Your task to perform on an android device: toggle sleep mode Image 0: 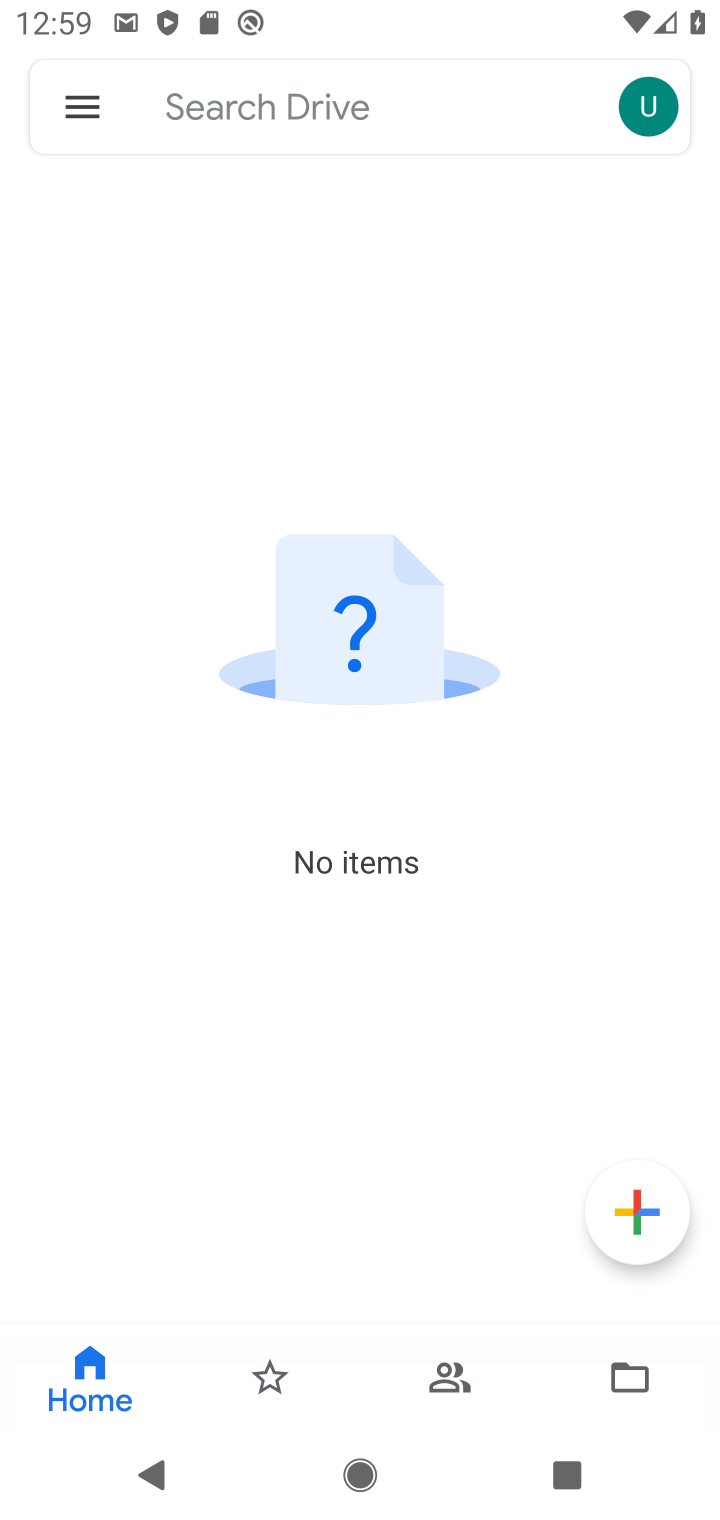
Step 0: press back button
Your task to perform on an android device: toggle sleep mode Image 1: 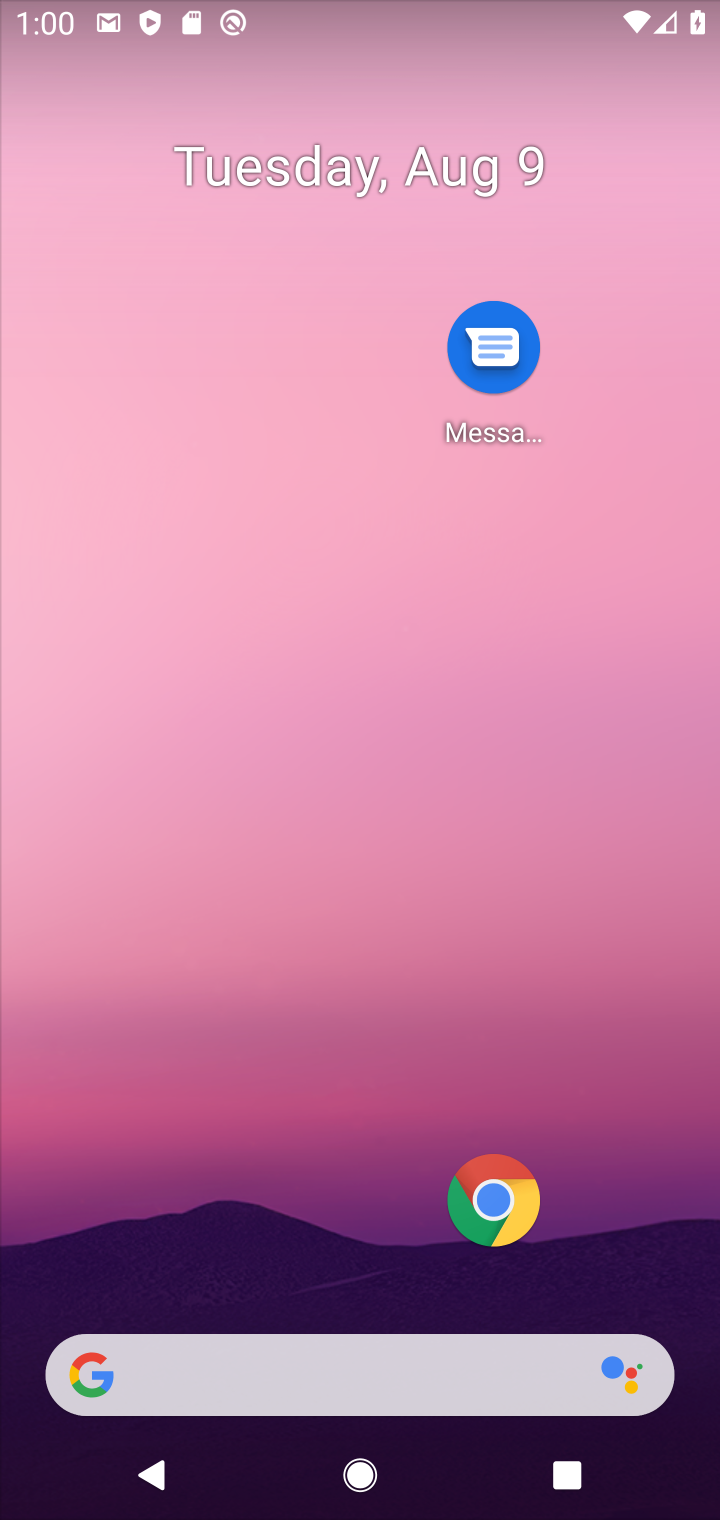
Step 1: drag from (356, 943) to (509, 7)
Your task to perform on an android device: toggle sleep mode Image 2: 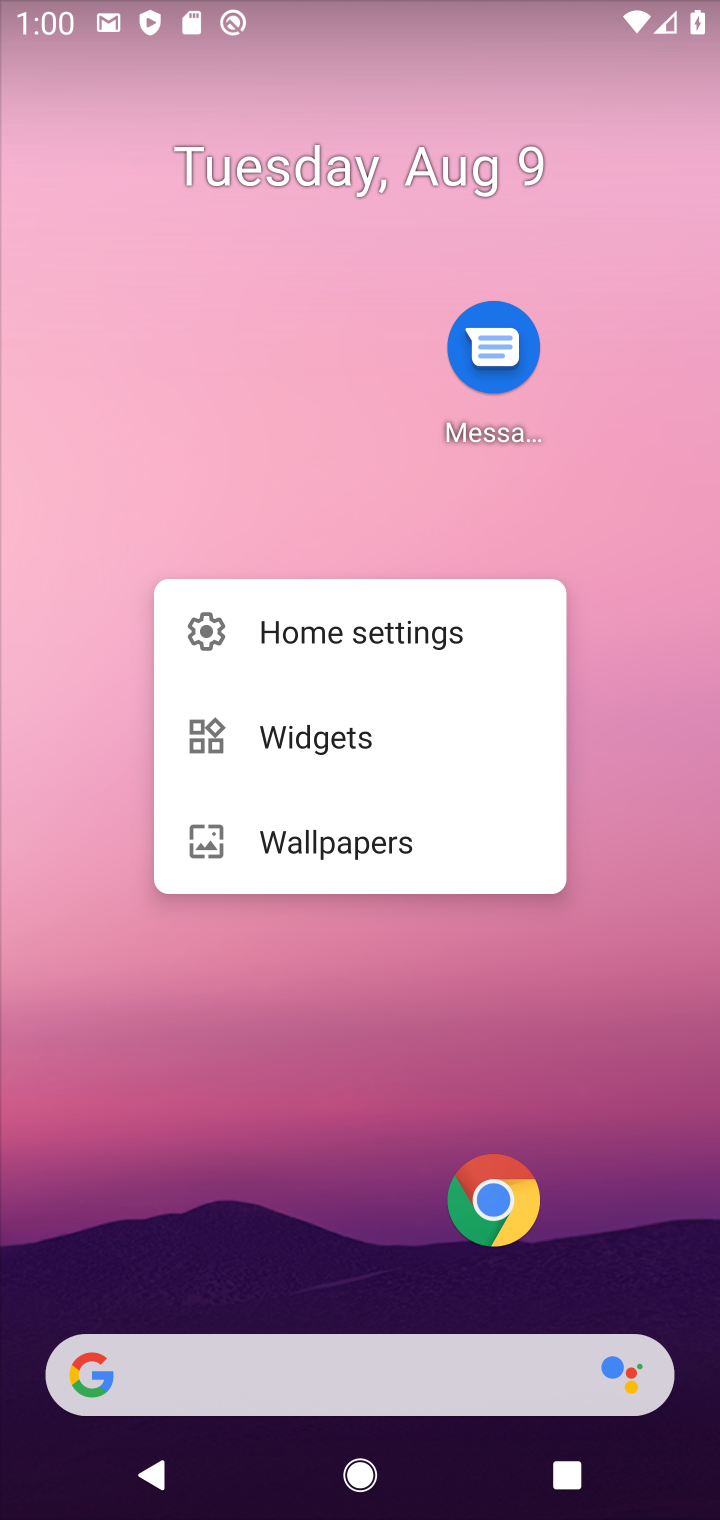
Step 2: click (170, 1285)
Your task to perform on an android device: toggle sleep mode Image 3: 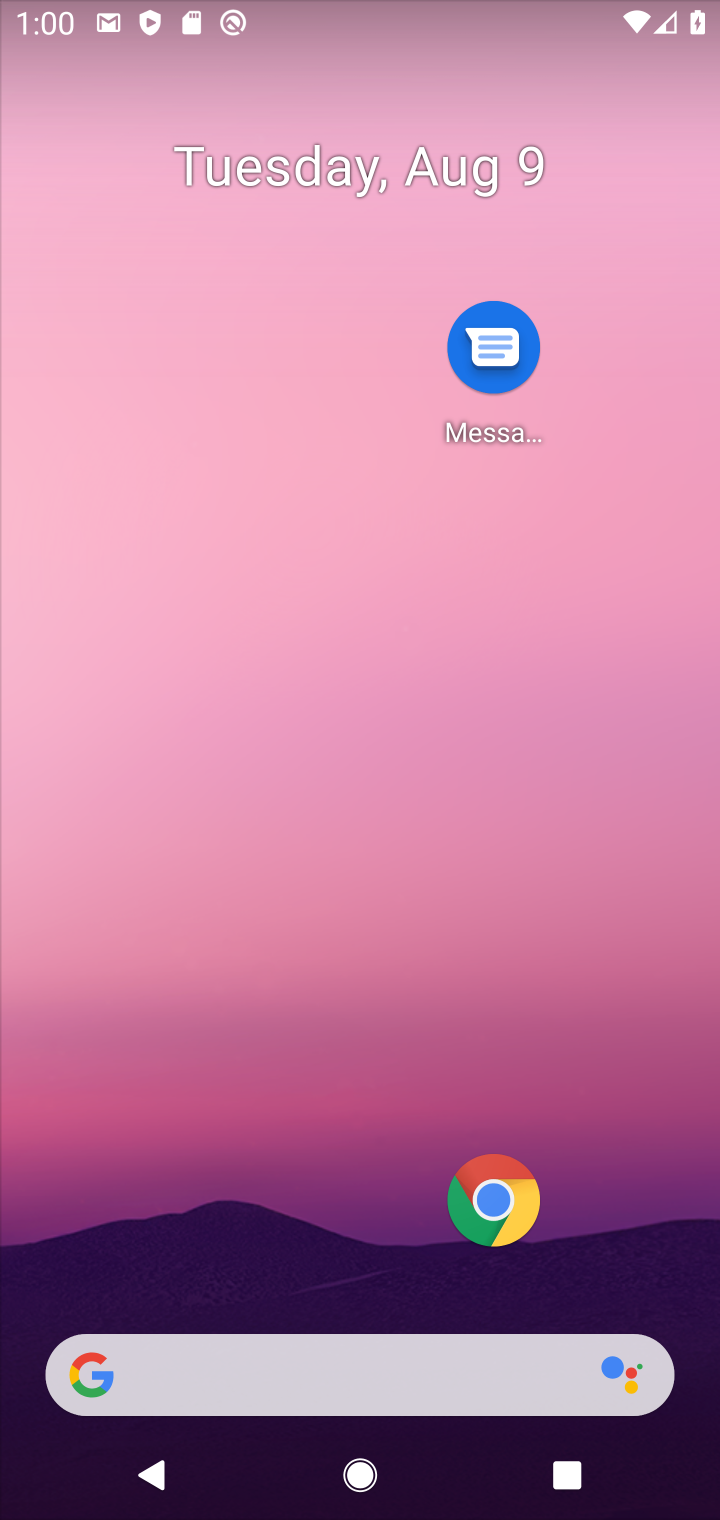
Step 3: drag from (412, 622) to (500, 31)
Your task to perform on an android device: toggle sleep mode Image 4: 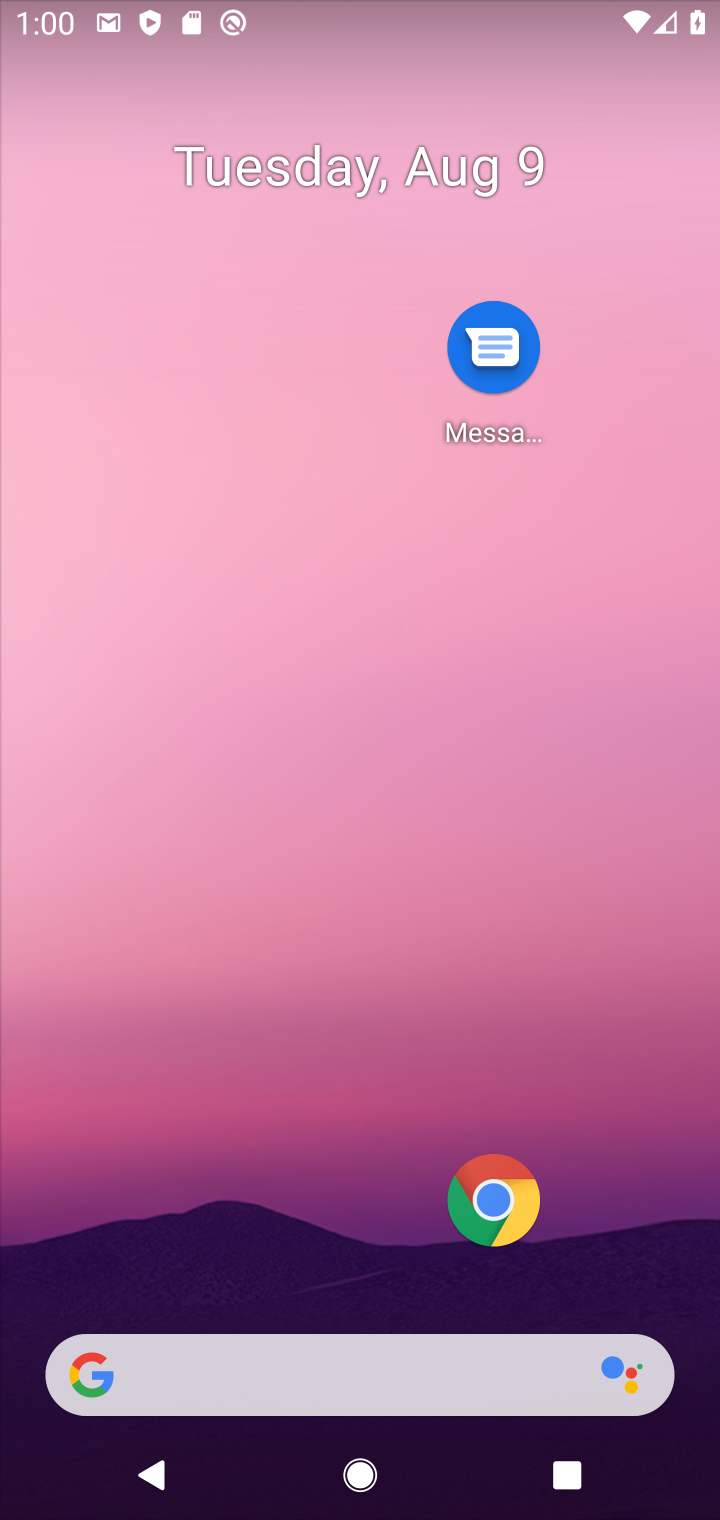
Step 4: drag from (148, 1264) to (336, 31)
Your task to perform on an android device: toggle sleep mode Image 5: 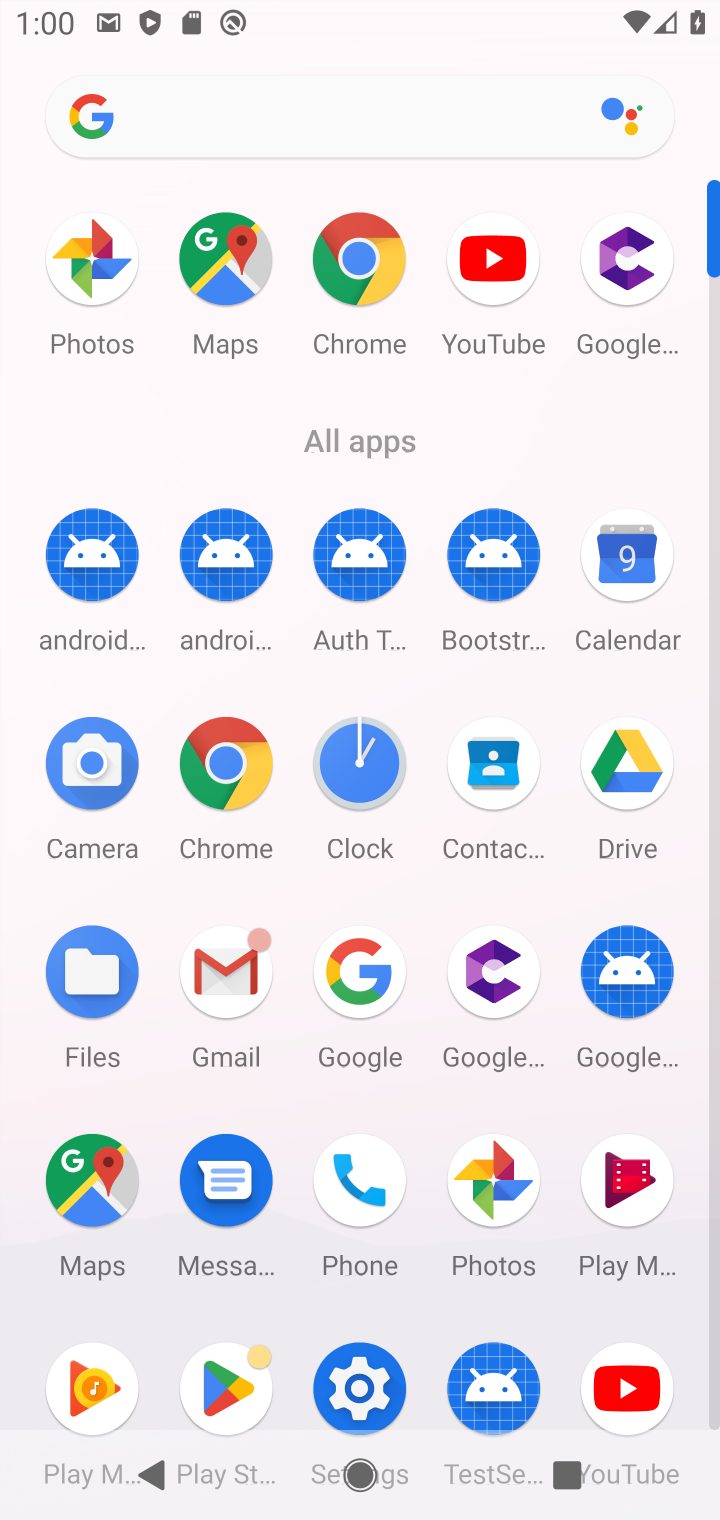
Step 5: click (356, 1384)
Your task to perform on an android device: toggle sleep mode Image 6: 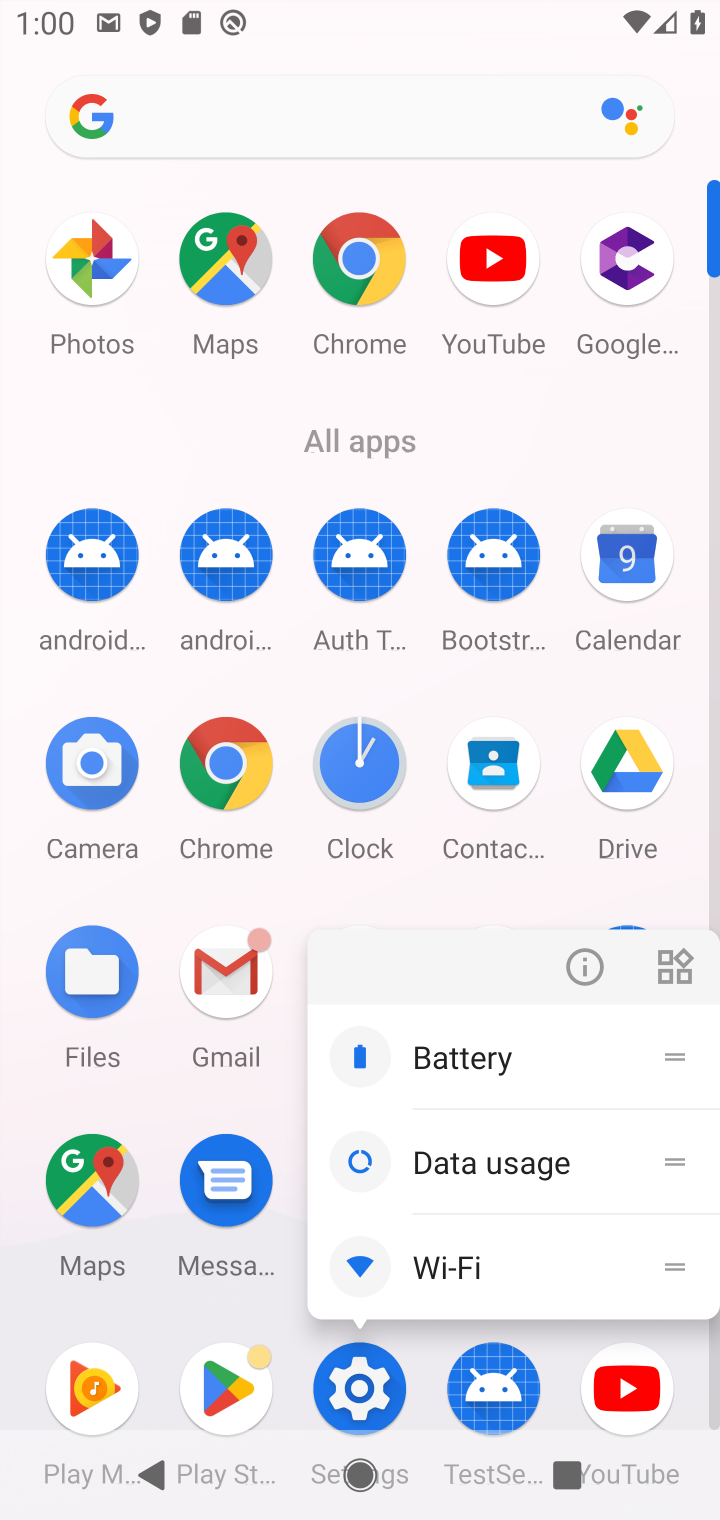
Step 6: click (358, 1382)
Your task to perform on an android device: toggle sleep mode Image 7: 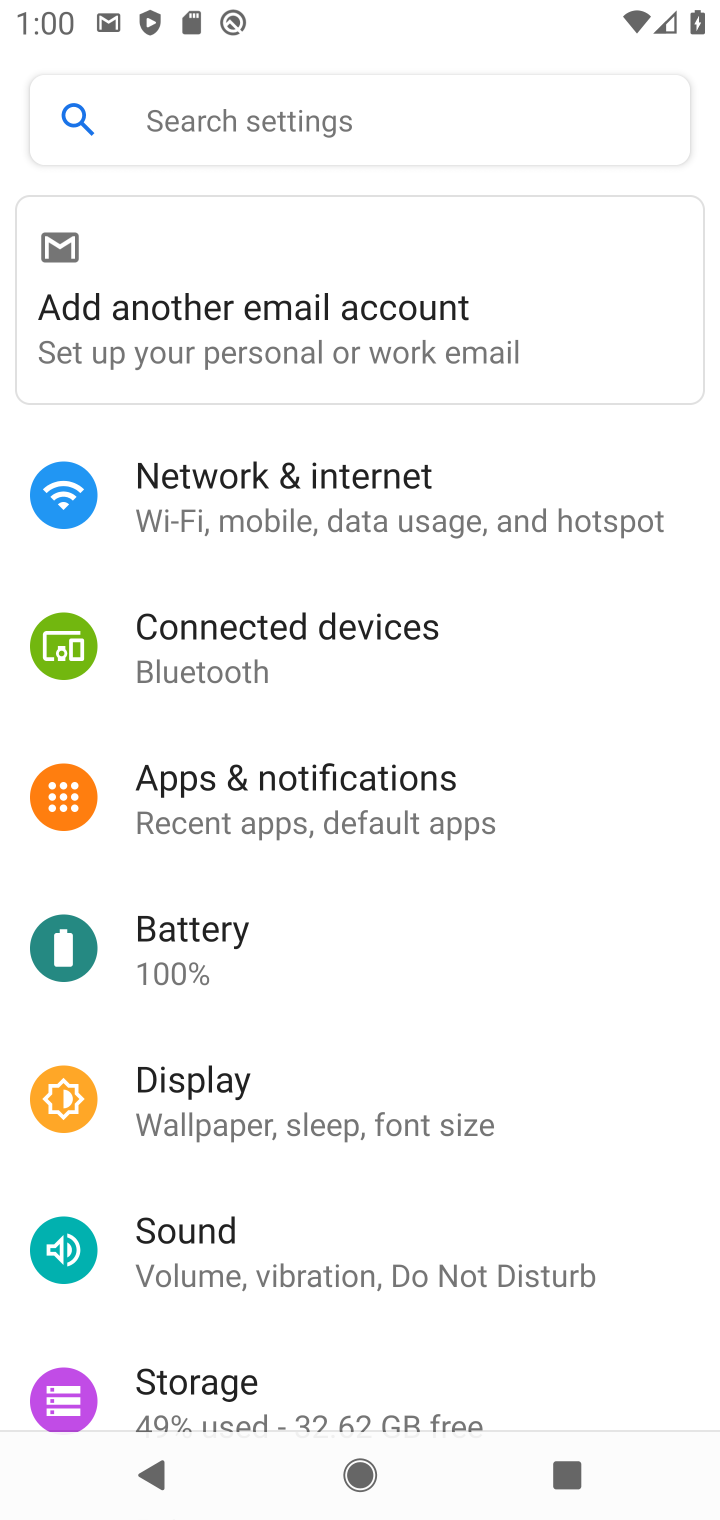
Step 7: click (279, 123)
Your task to perform on an android device: toggle sleep mode Image 8: 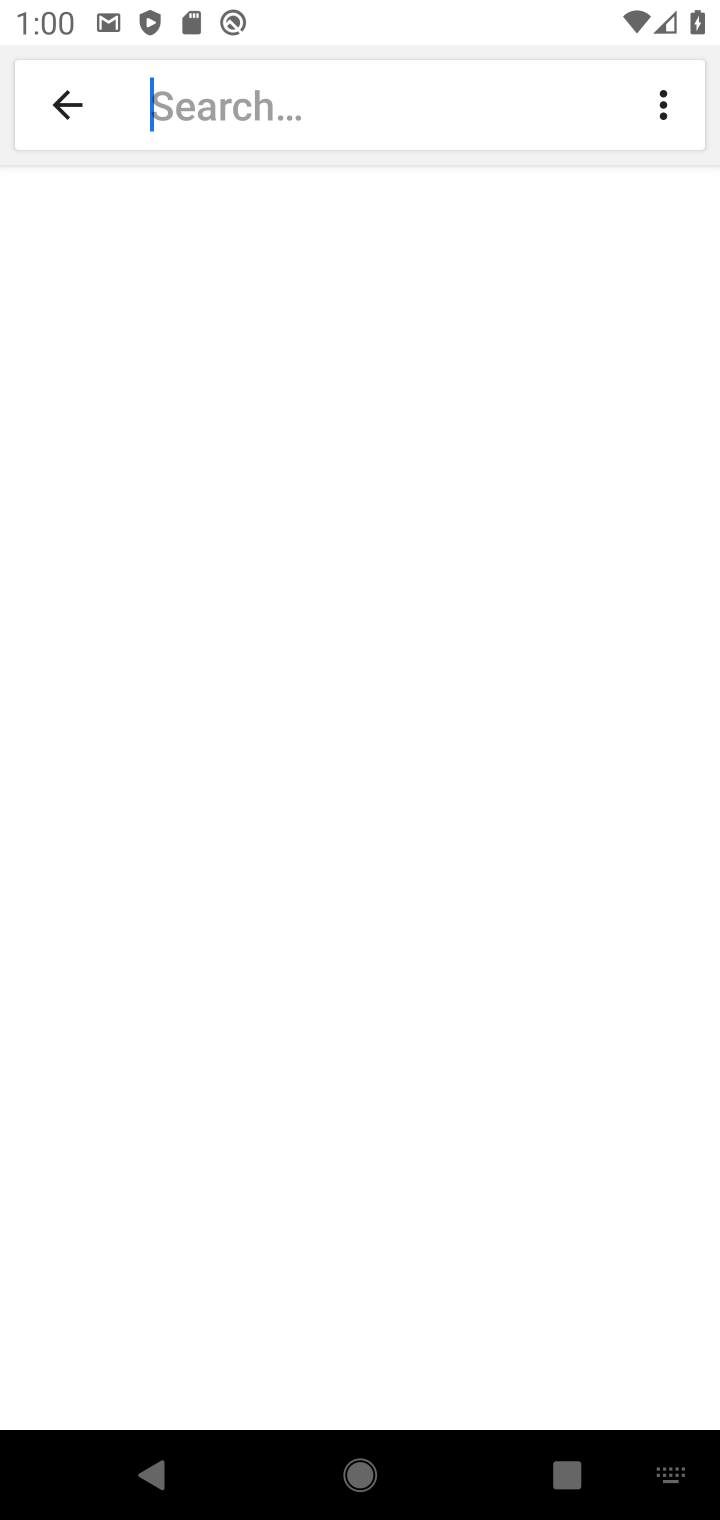
Step 8: type "sleep mode"
Your task to perform on an android device: toggle sleep mode Image 9: 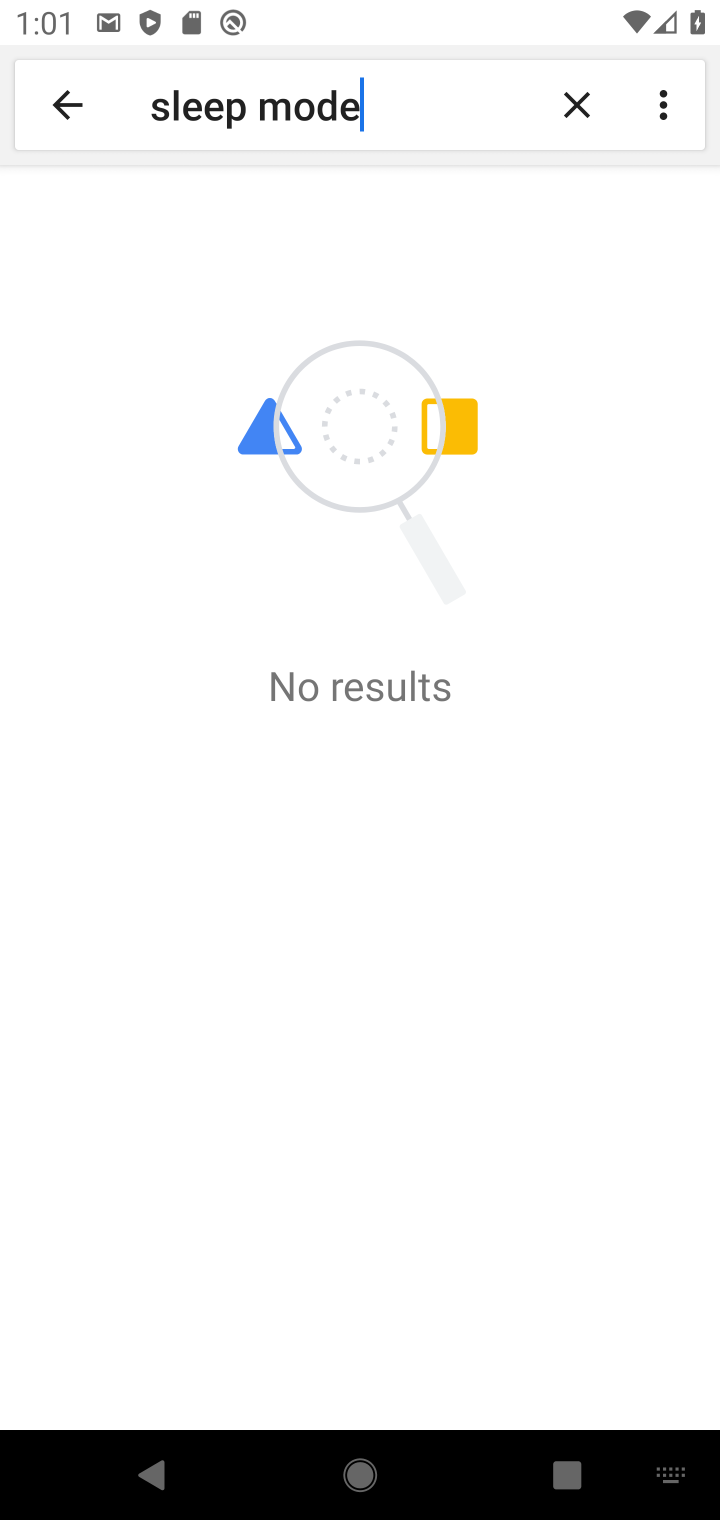
Step 9: task complete